Your task to perform on an android device: Open calendar and show me the second week of next month Image 0: 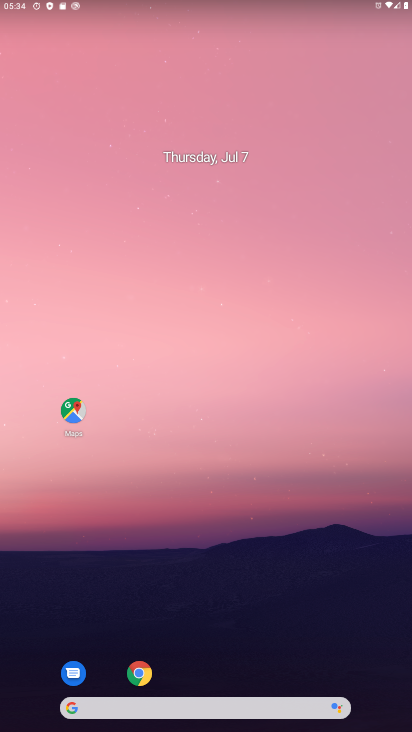
Step 0: drag from (340, 696) to (372, 1)
Your task to perform on an android device: Open calendar and show me the second week of next month Image 1: 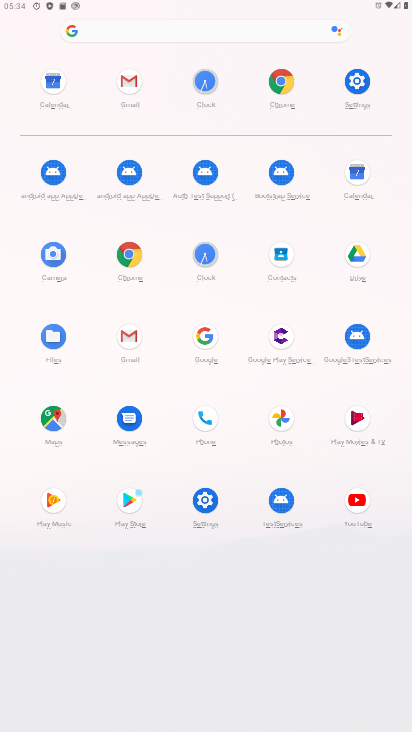
Step 1: click (356, 179)
Your task to perform on an android device: Open calendar and show me the second week of next month Image 2: 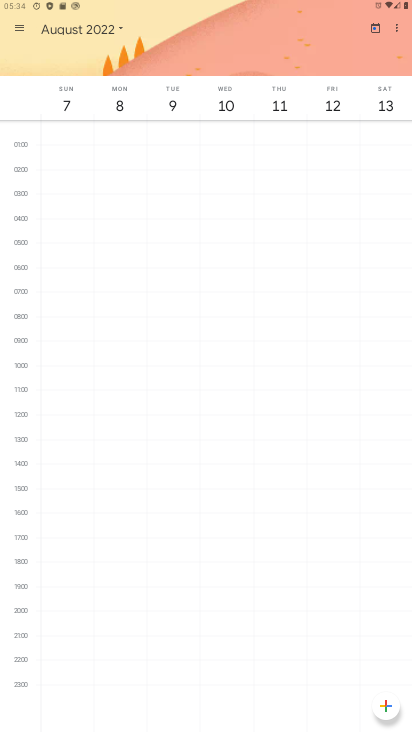
Step 2: task complete